Your task to perform on an android device: empty trash in the gmail app Image 0: 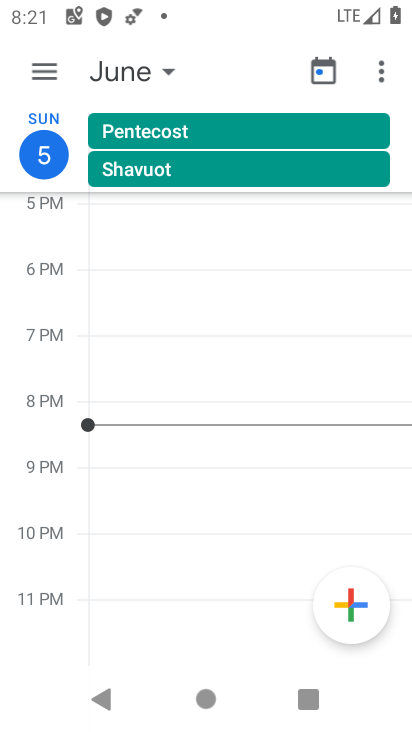
Step 0: press home button
Your task to perform on an android device: empty trash in the gmail app Image 1: 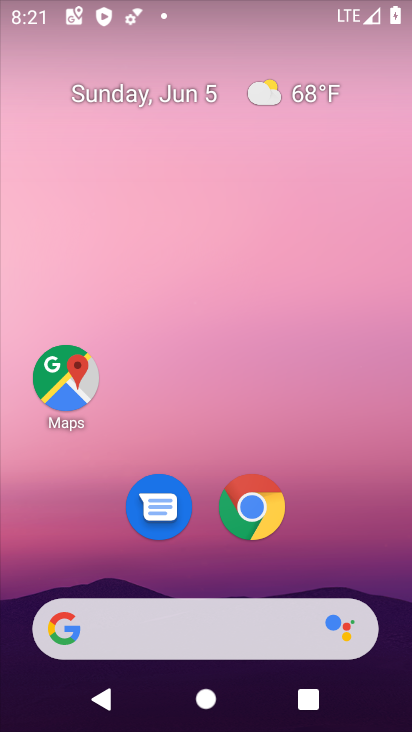
Step 1: drag from (223, 579) to (295, 26)
Your task to perform on an android device: empty trash in the gmail app Image 2: 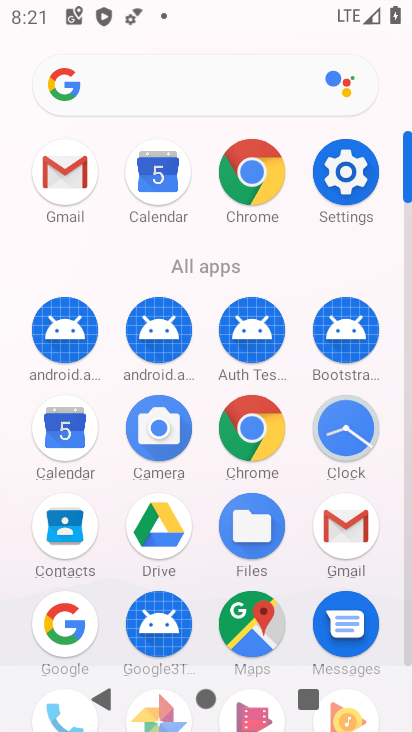
Step 2: click (323, 554)
Your task to perform on an android device: empty trash in the gmail app Image 3: 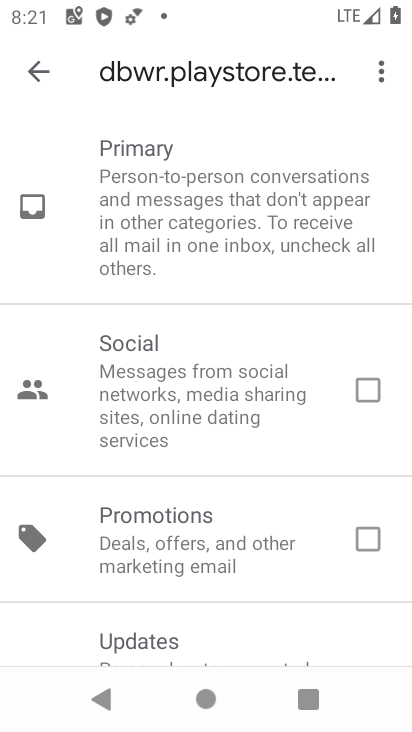
Step 3: click (30, 67)
Your task to perform on an android device: empty trash in the gmail app Image 4: 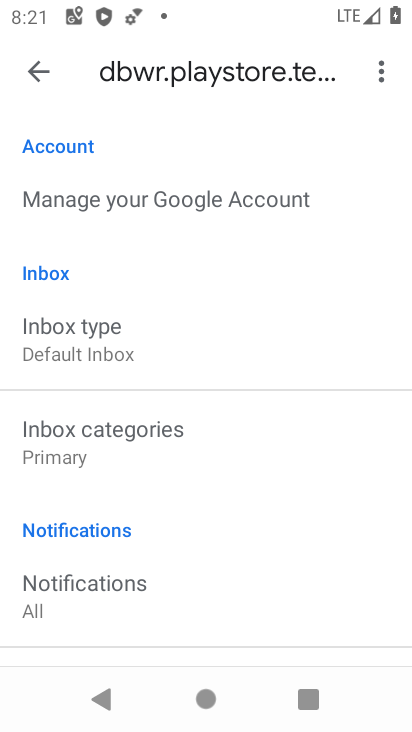
Step 4: click (37, 76)
Your task to perform on an android device: empty trash in the gmail app Image 5: 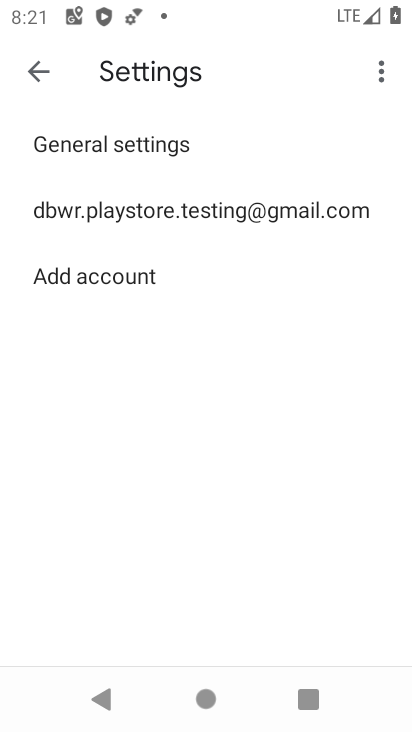
Step 5: click (37, 76)
Your task to perform on an android device: empty trash in the gmail app Image 6: 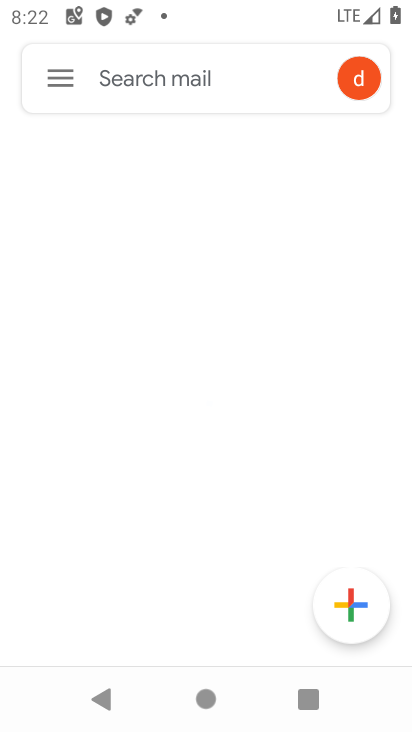
Step 6: click (37, 76)
Your task to perform on an android device: empty trash in the gmail app Image 7: 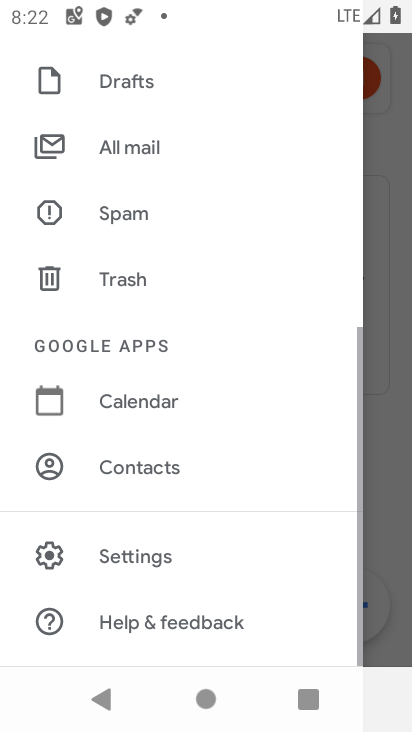
Step 7: click (79, 297)
Your task to perform on an android device: empty trash in the gmail app Image 8: 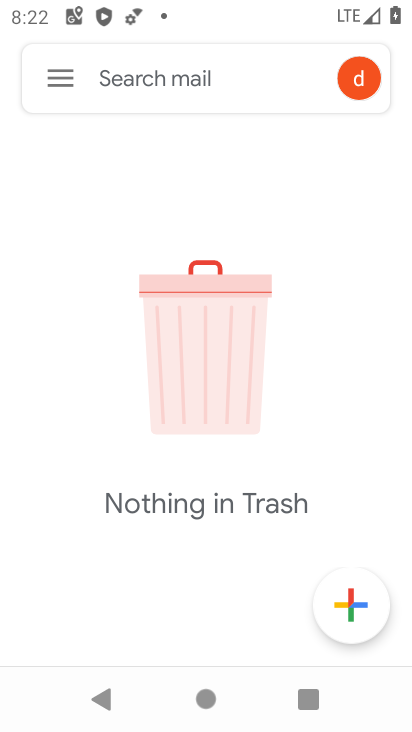
Step 8: task complete